Your task to perform on an android device: open chrome and create a bookmark for the current page Image 0: 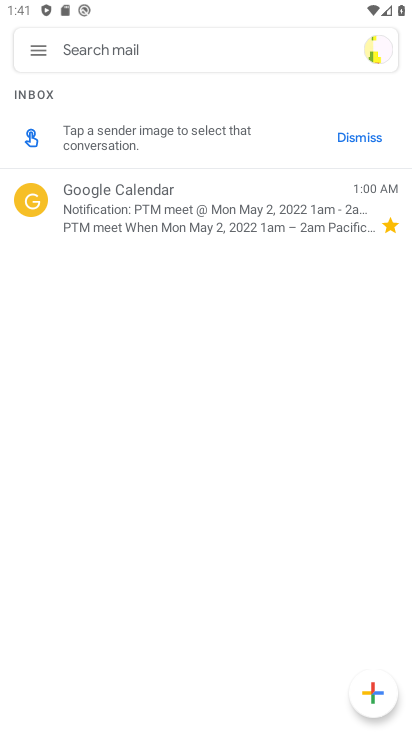
Step 0: press home button
Your task to perform on an android device: open chrome and create a bookmark for the current page Image 1: 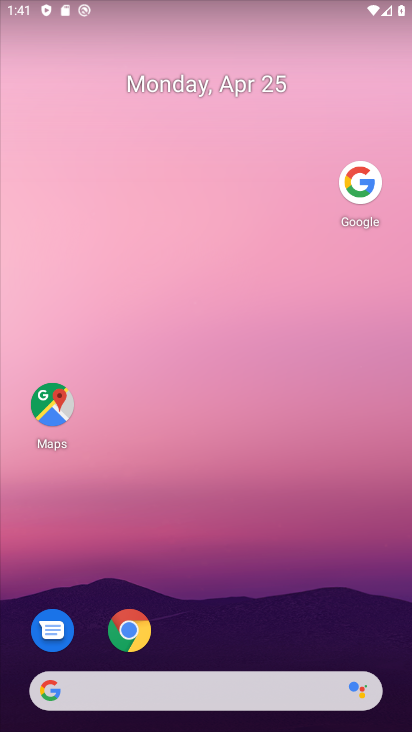
Step 1: drag from (188, 649) to (122, 26)
Your task to perform on an android device: open chrome and create a bookmark for the current page Image 2: 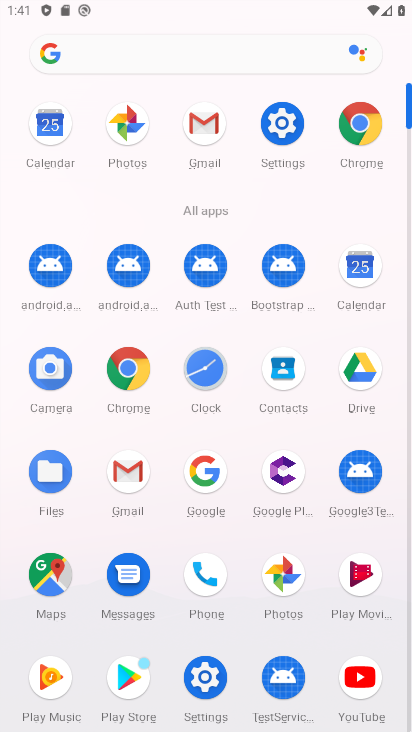
Step 2: click (119, 381)
Your task to perform on an android device: open chrome and create a bookmark for the current page Image 3: 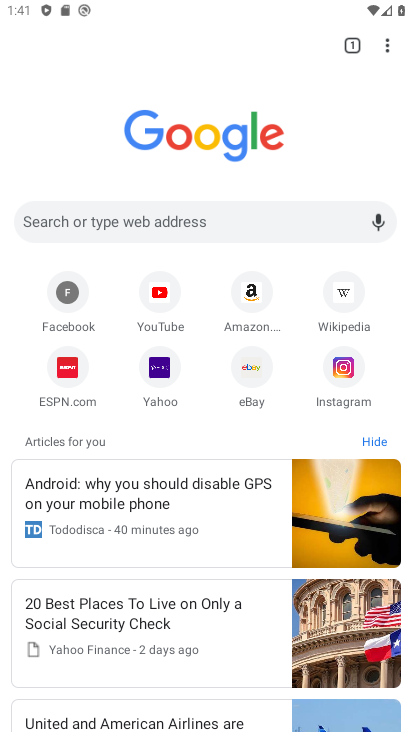
Step 3: task complete